Your task to perform on an android device: turn off priority inbox in the gmail app Image 0: 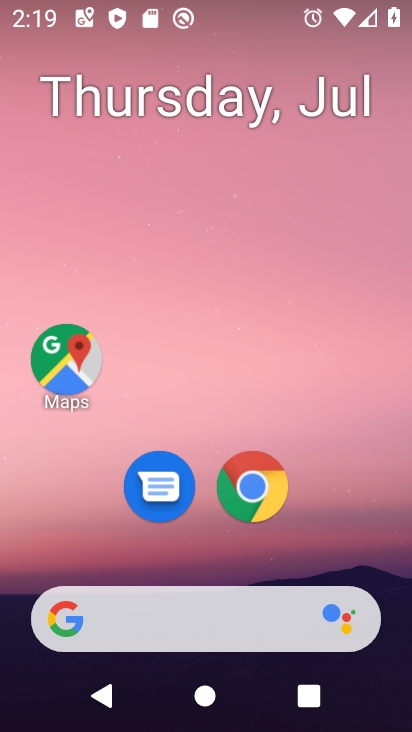
Step 0: drag from (228, 478) to (346, 24)
Your task to perform on an android device: turn off priority inbox in the gmail app Image 1: 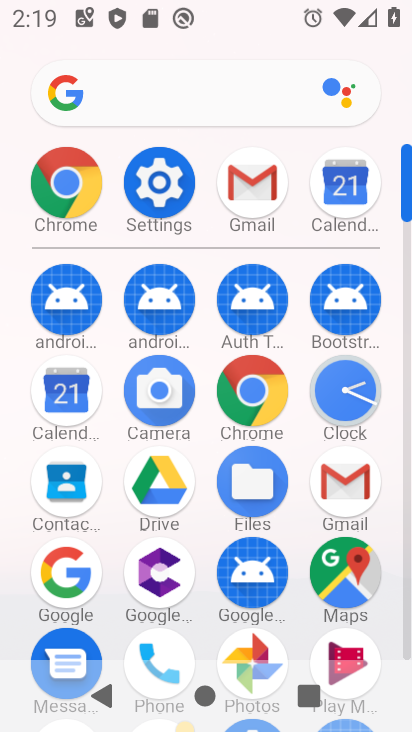
Step 1: click (246, 174)
Your task to perform on an android device: turn off priority inbox in the gmail app Image 2: 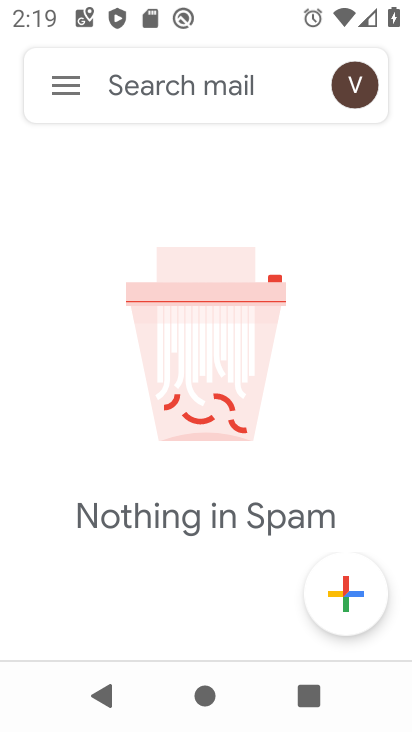
Step 2: click (64, 76)
Your task to perform on an android device: turn off priority inbox in the gmail app Image 3: 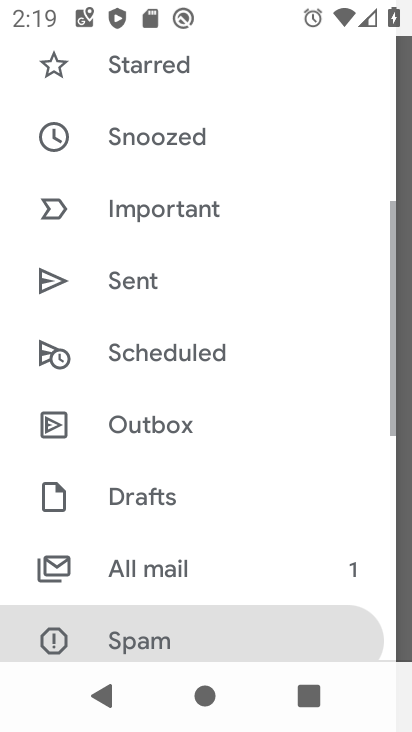
Step 3: drag from (149, 595) to (269, 24)
Your task to perform on an android device: turn off priority inbox in the gmail app Image 4: 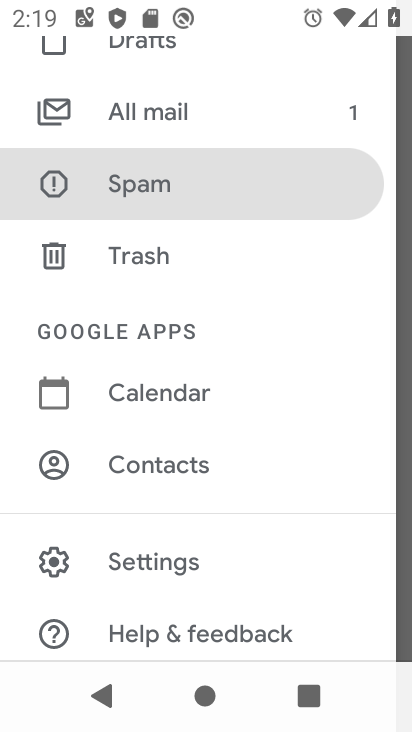
Step 4: click (131, 550)
Your task to perform on an android device: turn off priority inbox in the gmail app Image 5: 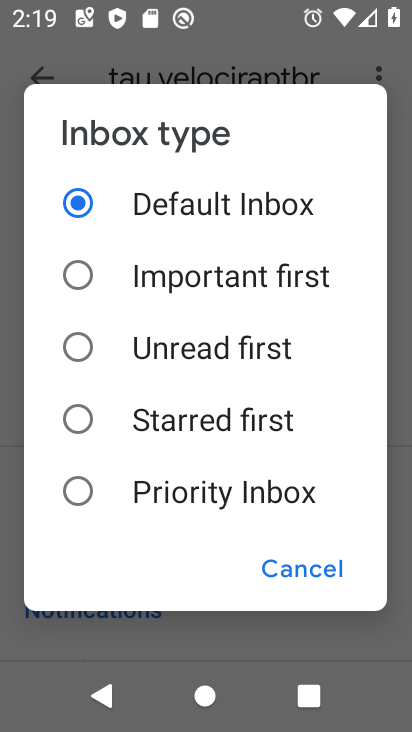
Step 5: task complete